Your task to perform on an android device: open sync settings in chrome Image 0: 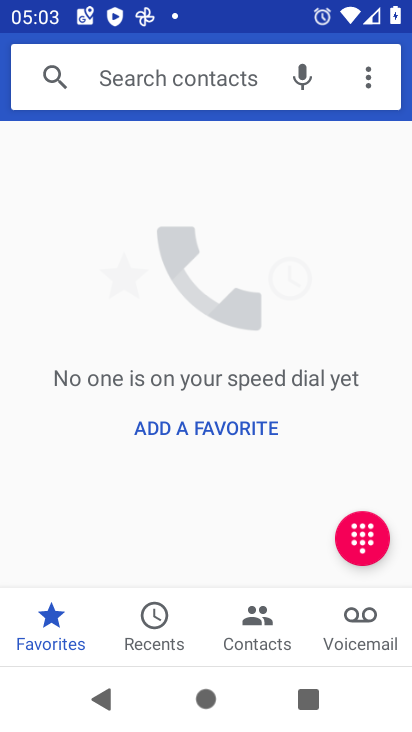
Step 0: press home button
Your task to perform on an android device: open sync settings in chrome Image 1: 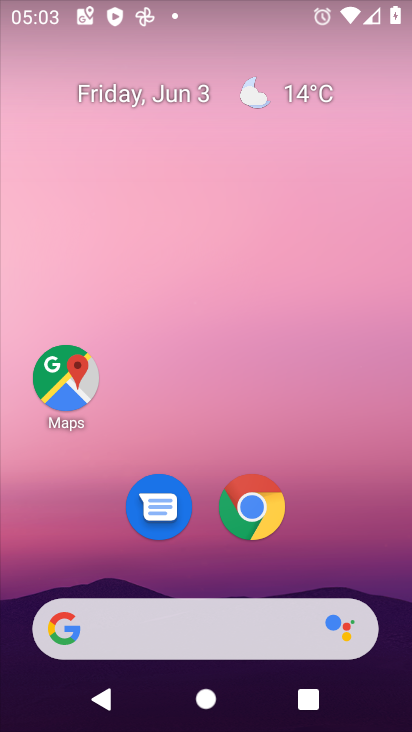
Step 1: click (248, 496)
Your task to perform on an android device: open sync settings in chrome Image 2: 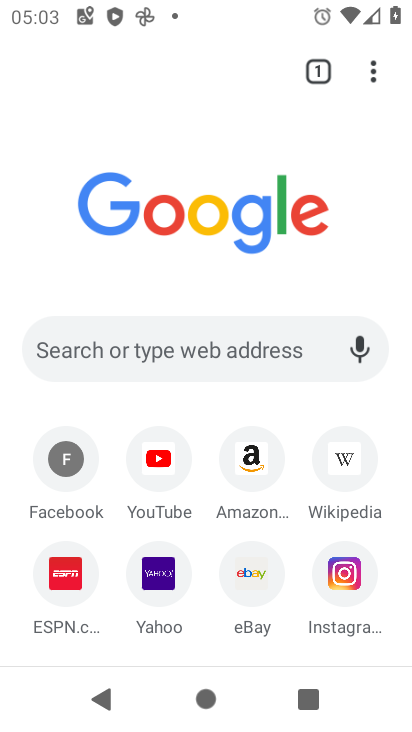
Step 2: drag from (364, 57) to (160, 498)
Your task to perform on an android device: open sync settings in chrome Image 3: 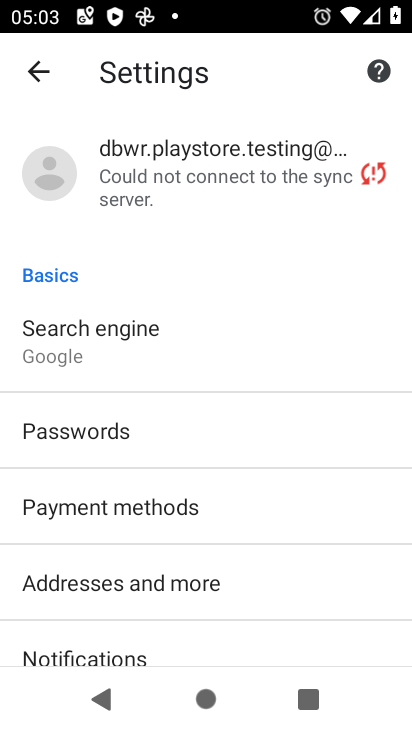
Step 3: click (189, 168)
Your task to perform on an android device: open sync settings in chrome Image 4: 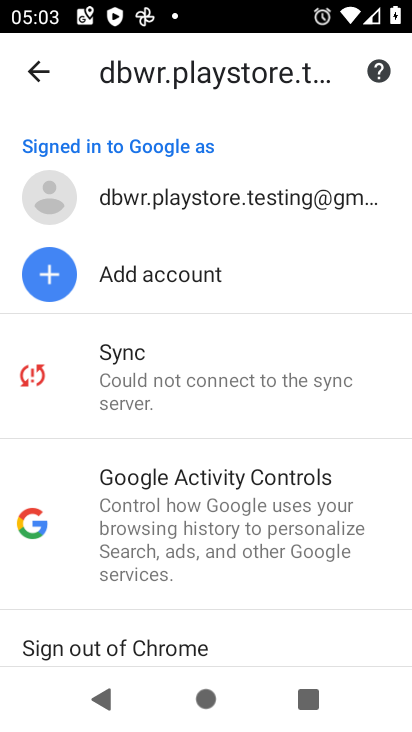
Step 4: click (180, 371)
Your task to perform on an android device: open sync settings in chrome Image 5: 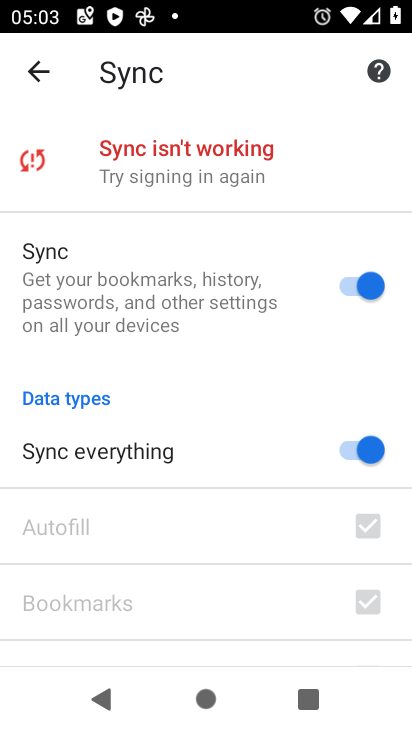
Step 5: task complete